Your task to perform on an android device: Open Reddit.com Image 0: 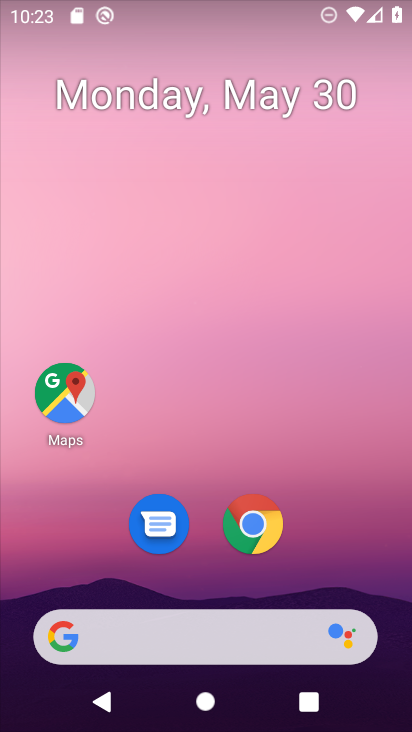
Step 0: click (254, 638)
Your task to perform on an android device: Open Reddit.com Image 1: 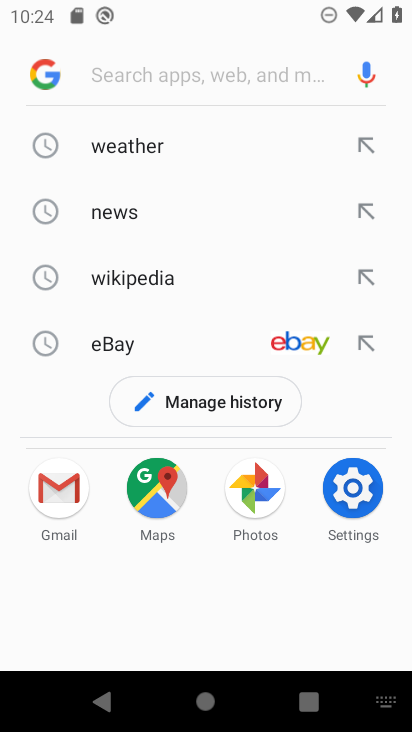
Step 1: type "reddit.com"
Your task to perform on an android device: Open Reddit.com Image 2: 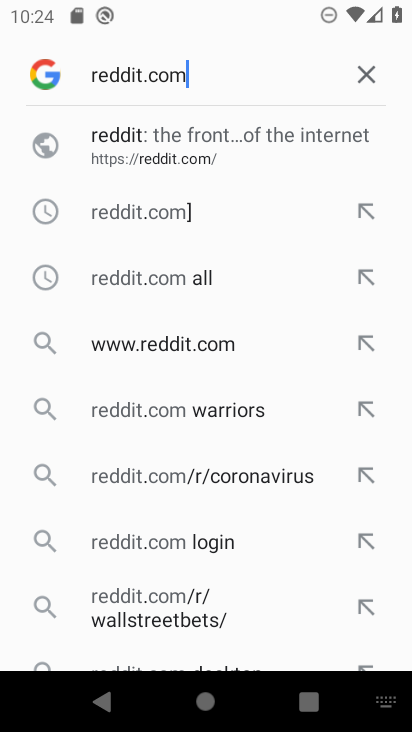
Step 2: click (138, 143)
Your task to perform on an android device: Open Reddit.com Image 3: 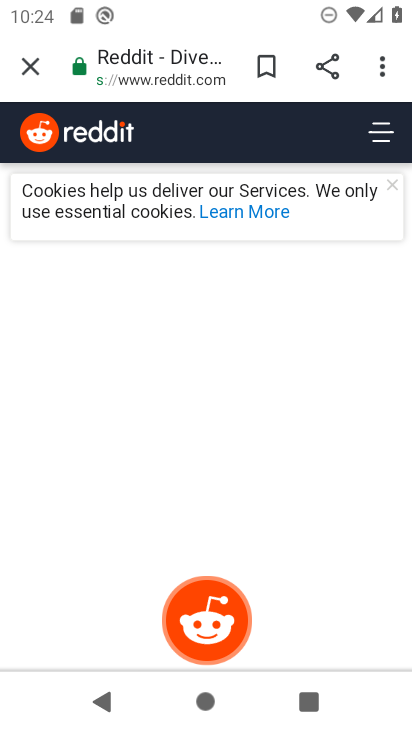
Step 3: task complete